Your task to perform on an android device: turn notification dots on Image 0: 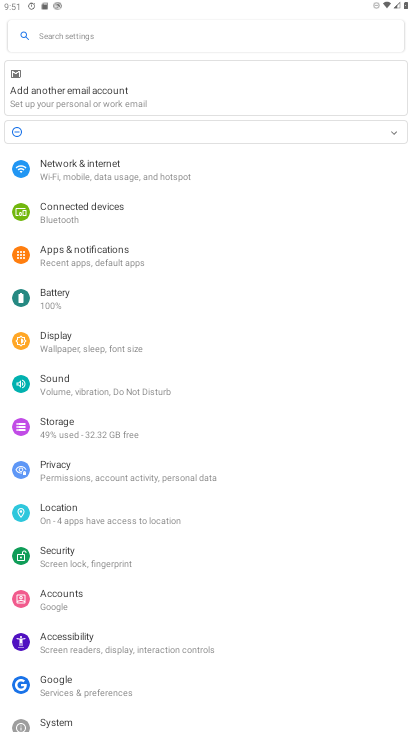
Step 0: press home button
Your task to perform on an android device: turn notification dots on Image 1: 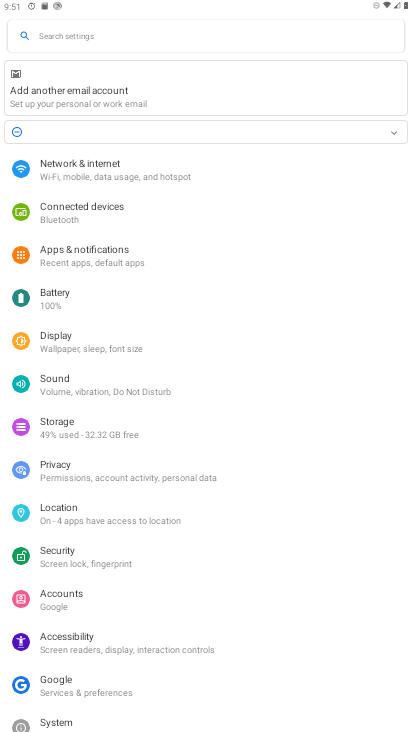
Step 1: drag from (363, 680) to (196, 51)
Your task to perform on an android device: turn notification dots on Image 2: 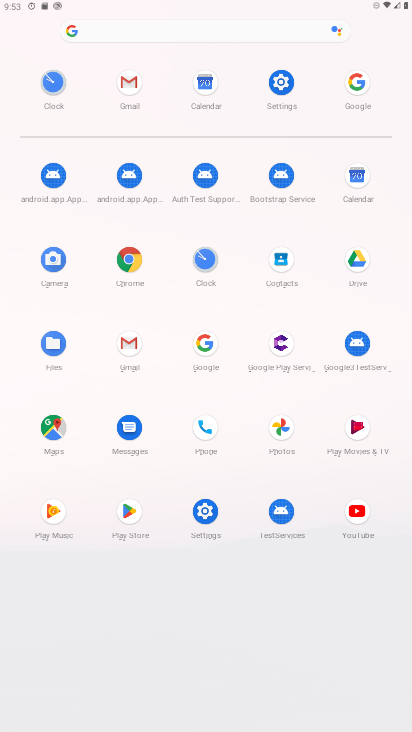
Step 2: click (201, 519)
Your task to perform on an android device: turn notification dots on Image 3: 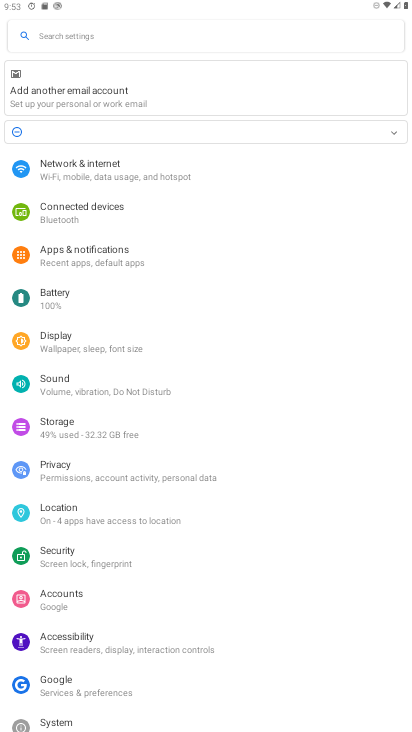
Step 3: click (89, 253)
Your task to perform on an android device: turn notification dots on Image 4: 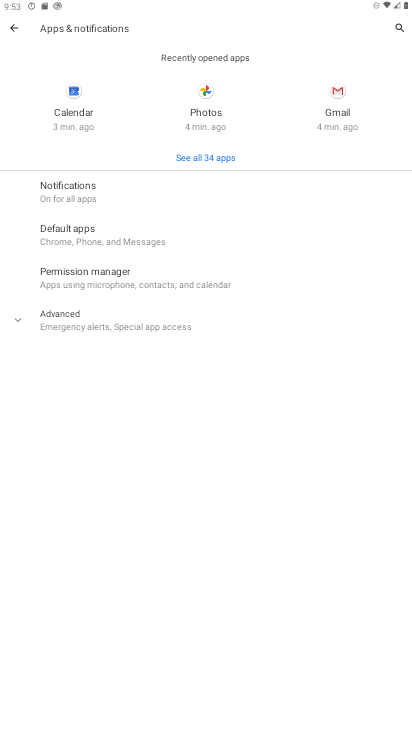
Step 4: click (88, 320)
Your task to perform on an android device: turn notification dots on Image 5: 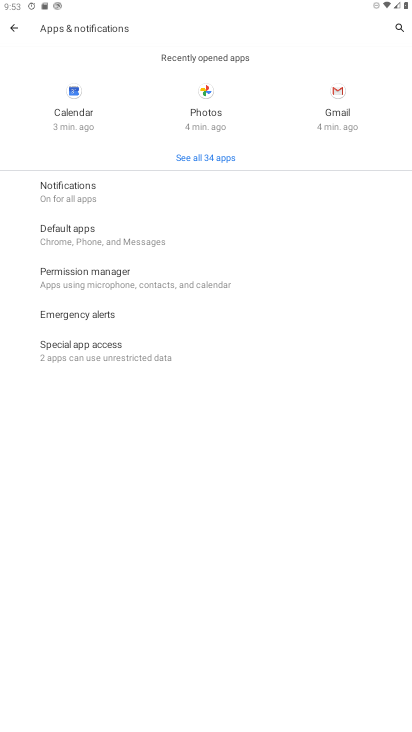
Step 5: click (92, 200)
Your task to perform on an android device: turn notification dots on Image 6: 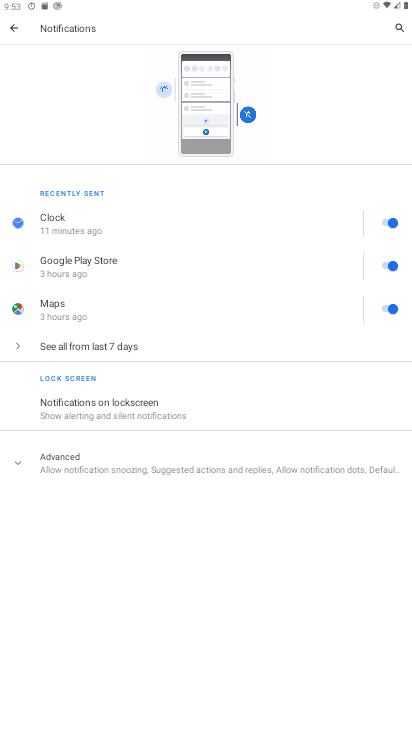
Step 6: click (41, 458)
Your task to perform on an android device: turn notification dots on Image 7: 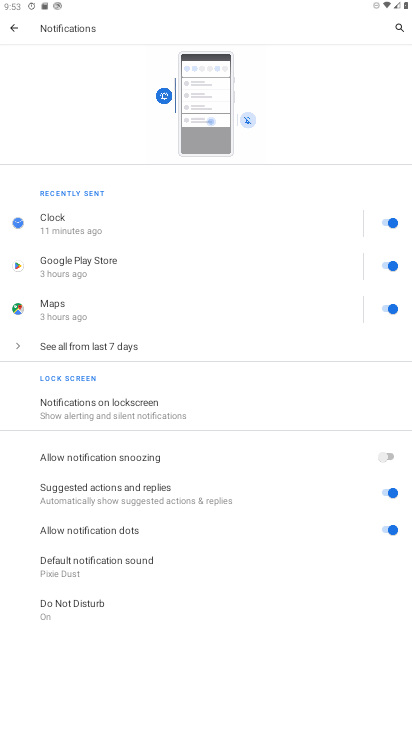
Step 7: task complete